Your task to perform on an android device: open a bookmark in the chrome app Image 0: 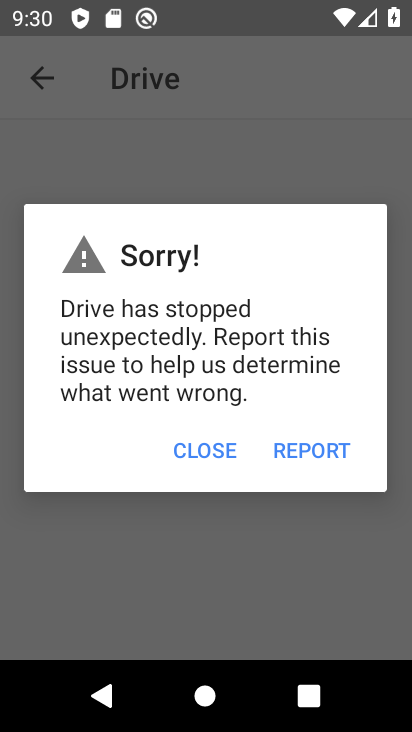
Step 0: click (207, 457)
Your task to perform on an android device: open a bookmark in the chrome app Image 1: 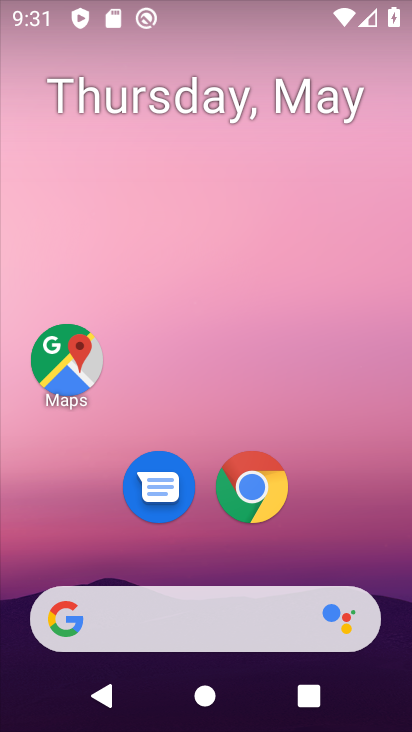
Step 1: click (227, 462)
Your task to perform on an android device: open a bookmark in the chrome app Image 2: 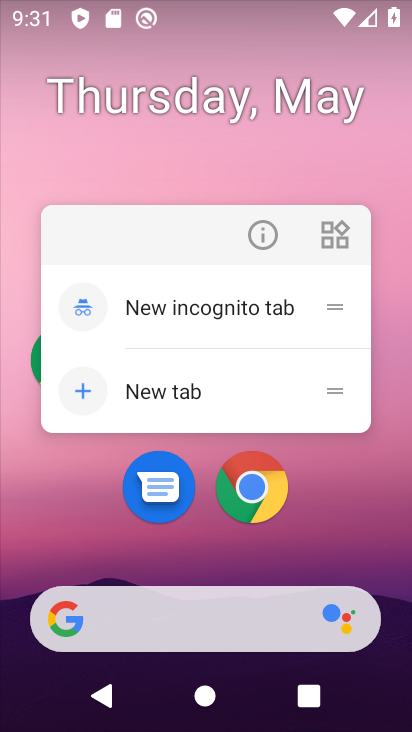
Step 2: click (248, 481)
Your task to perform on an android device: open a bookmark in the chrome app Image 3: 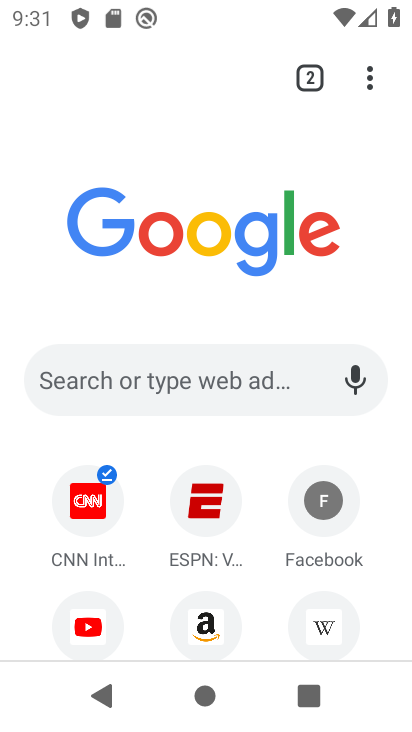
Step 3: task complete